Your task to perform on an android device: turn notification dots on Image 0: 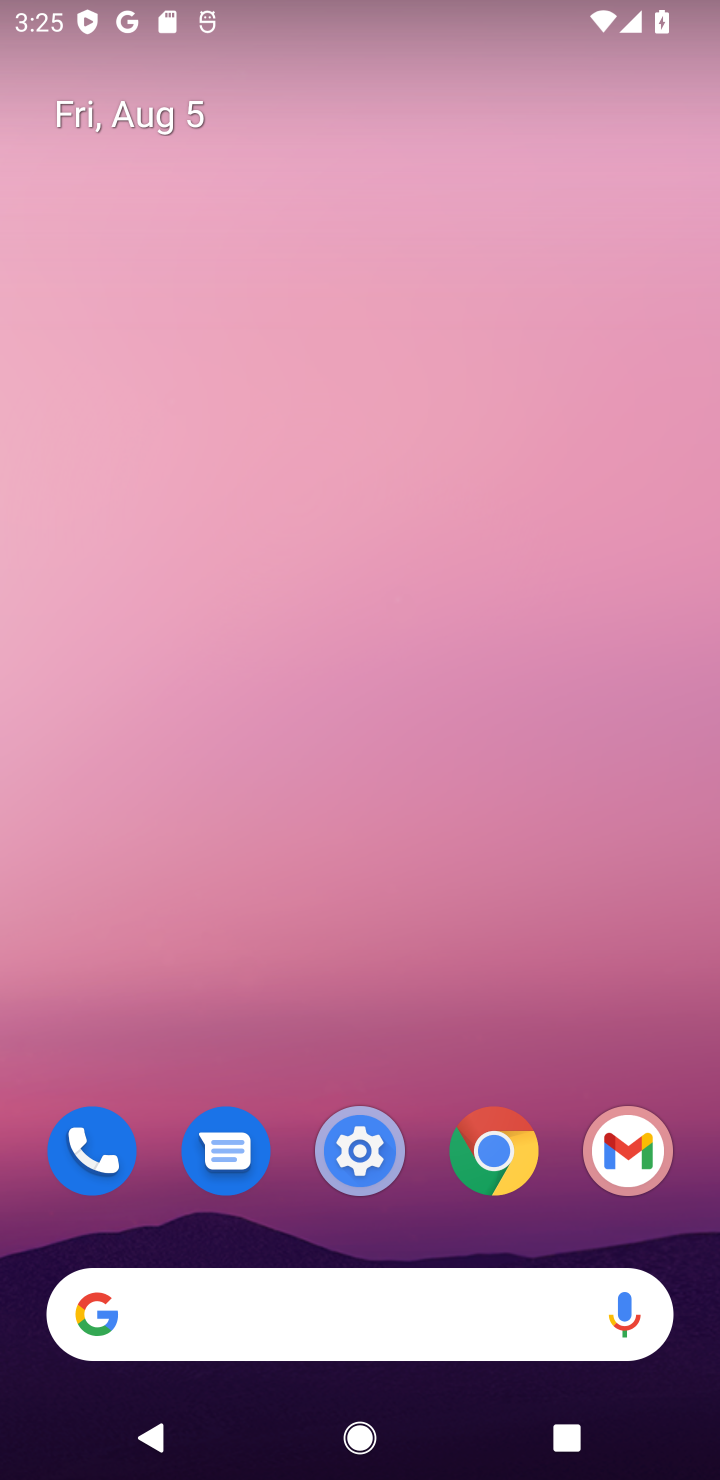
Step 0: click (369, 1130)
Your task to perform on an android device: turn notification dots on Image 1: 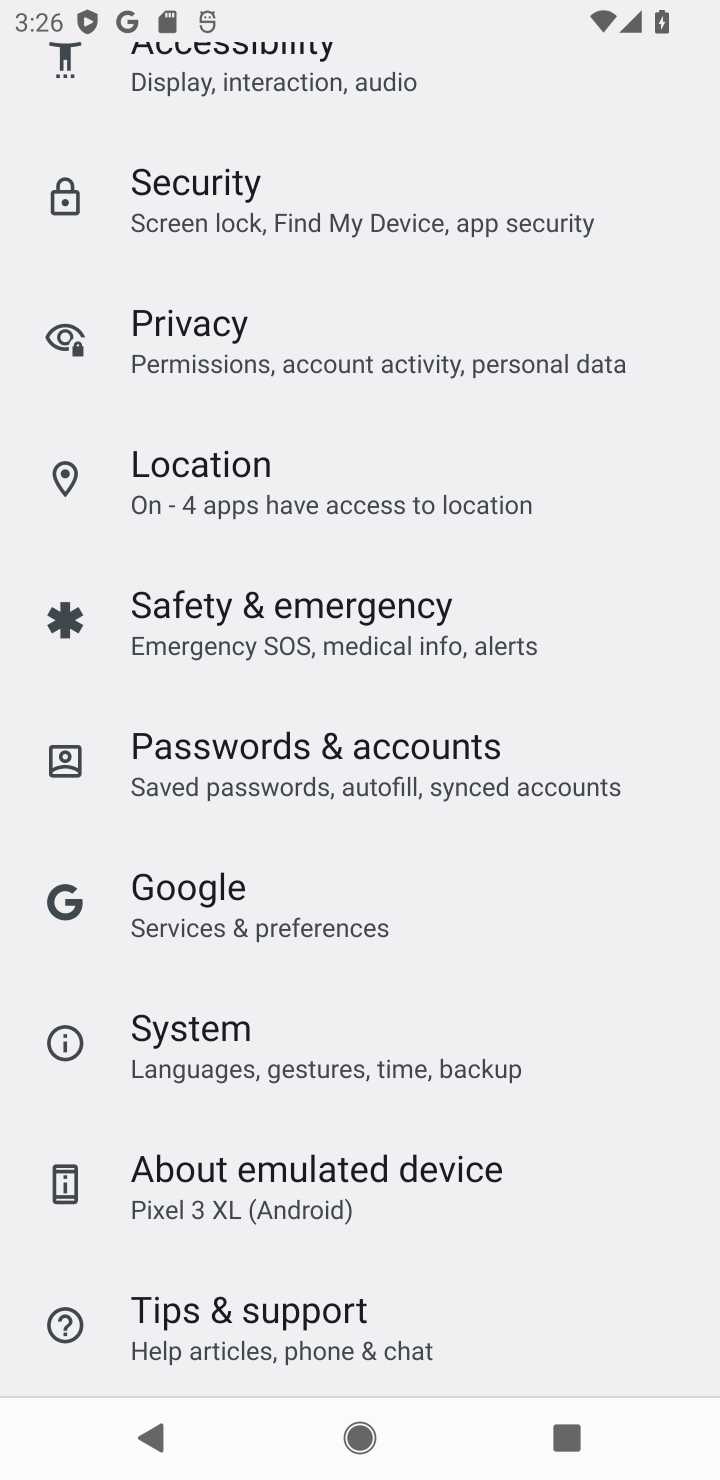
Step 1: drag from (303, 250) to (330, 676)
Your task to perform on an android device: turn notification dots on Image 2: 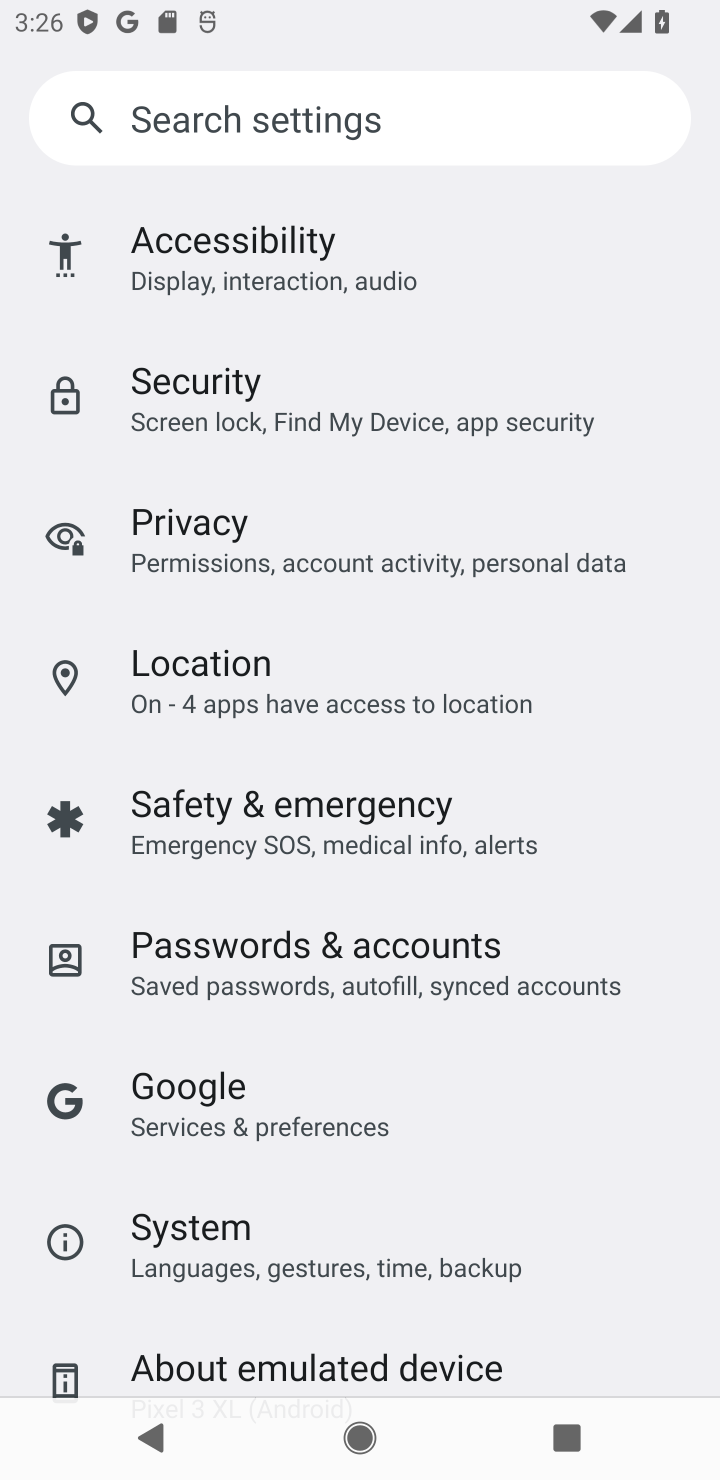
Step 2: drag from (326, 312) to (322, 932)
Your task to perform on an android device: turn notification dots on Image 3: 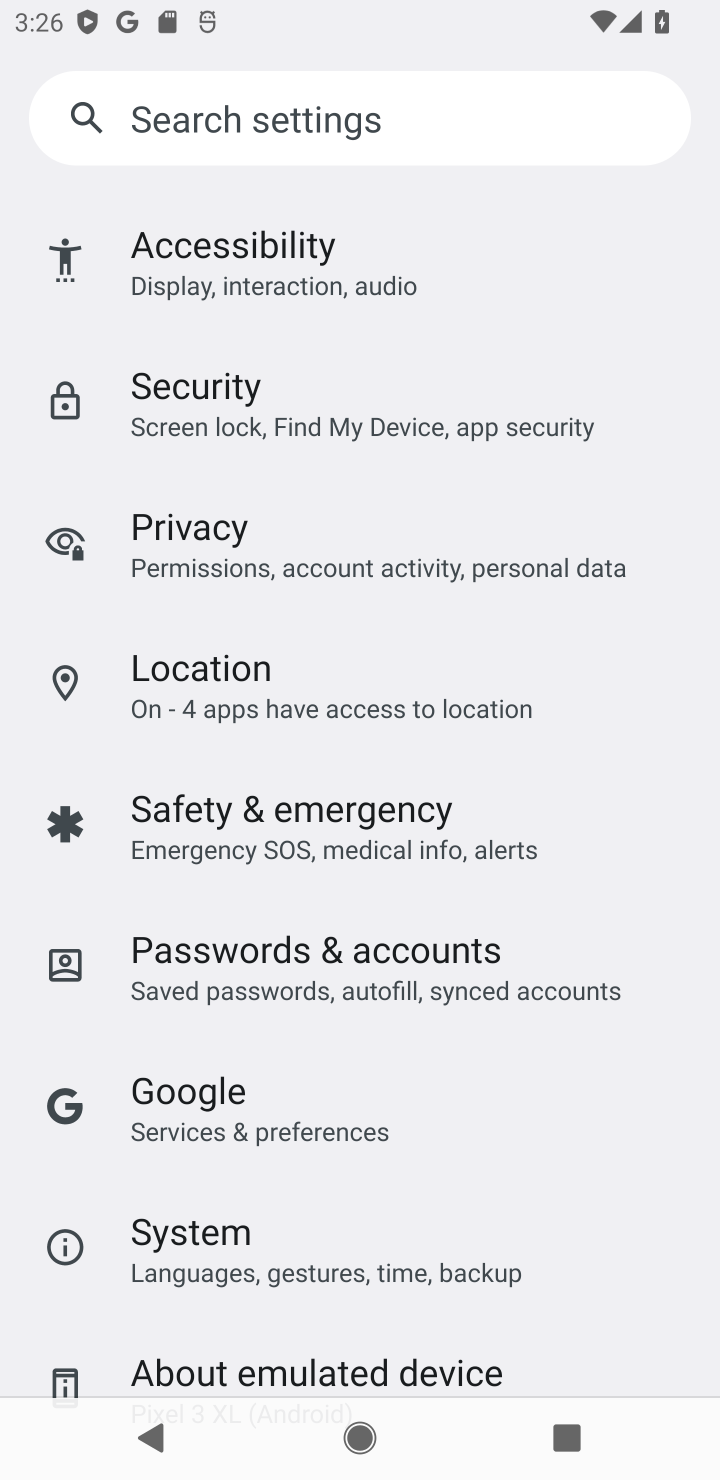
Step 3: drag from (289, 525) to (290, 1156)
Your task to perform on an android device: turn notification dots on Image 4: 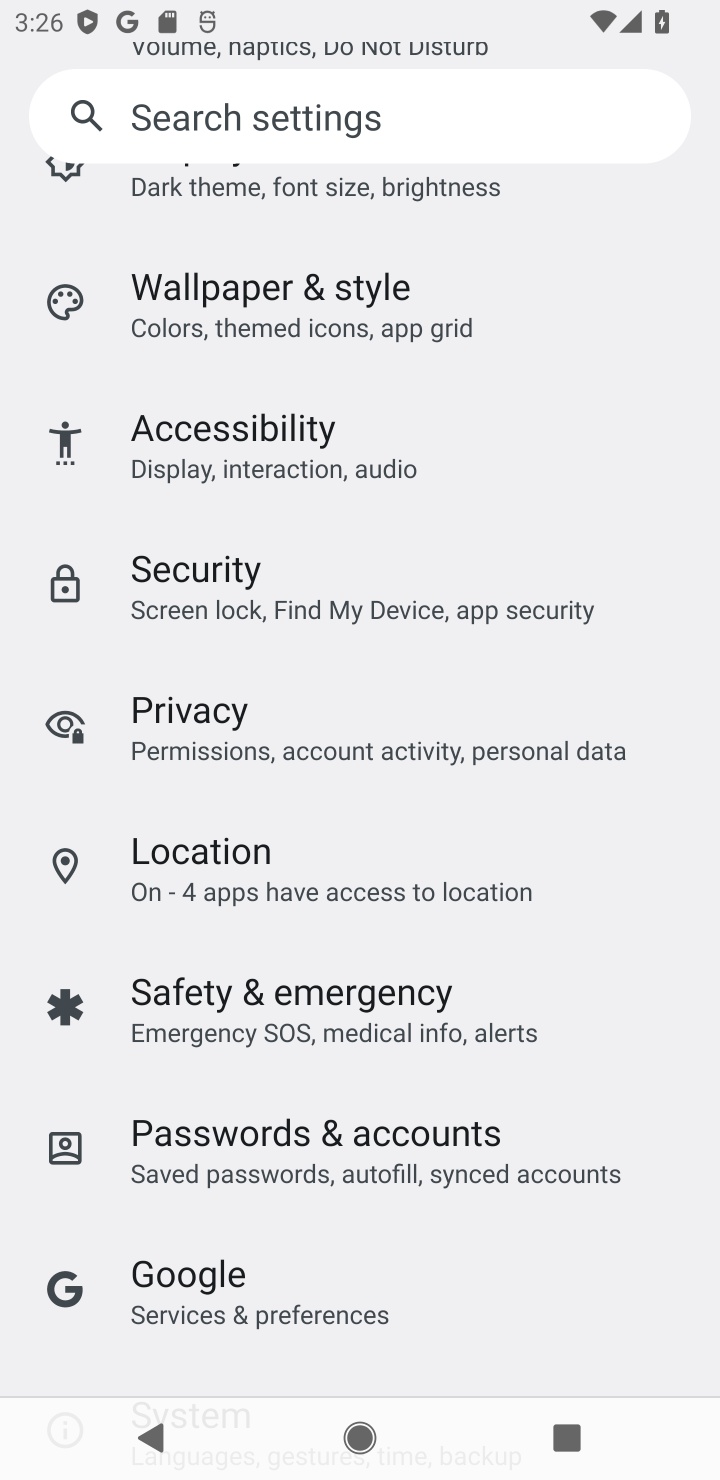
Step 4: drag from (329, 482) to (338, 881)
Your task to perform on an android device: turn notification dots on Image 5: 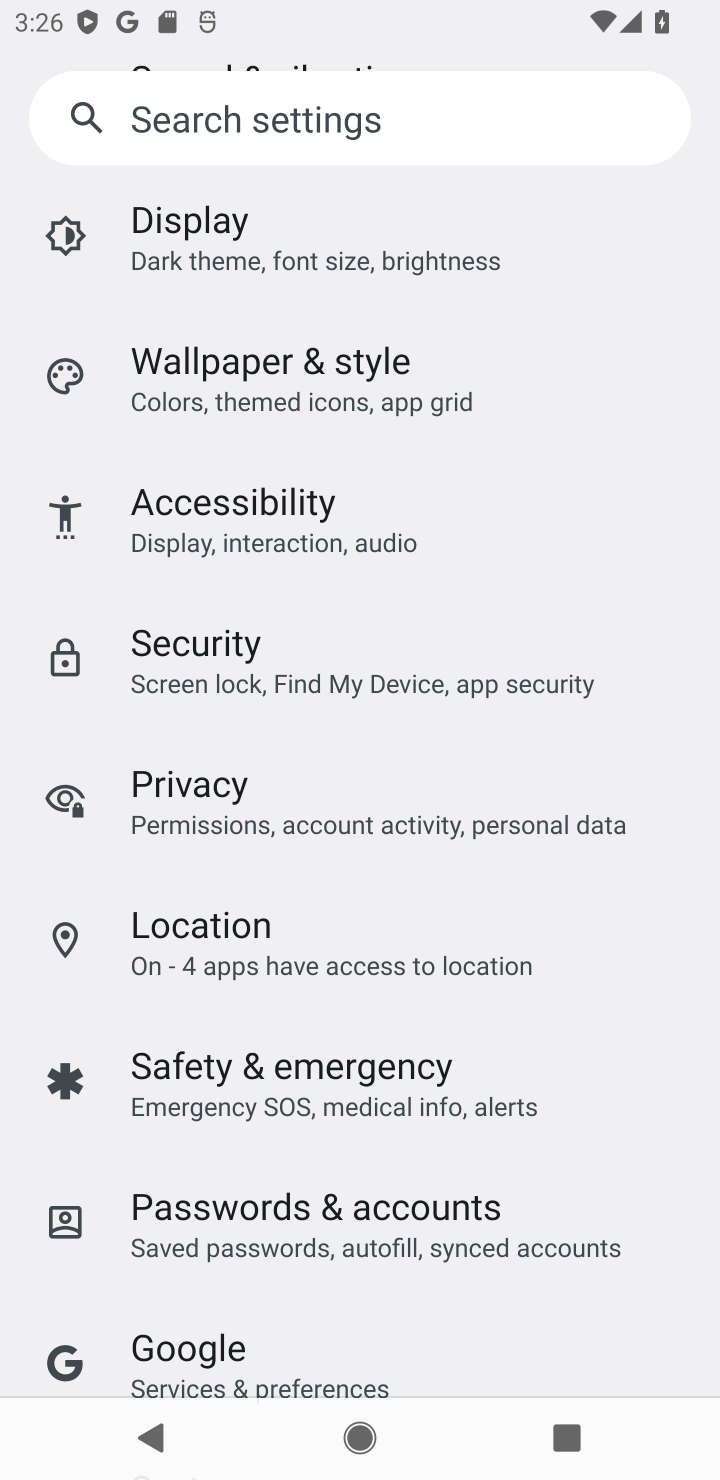
Step 5: drag from (321, 343) to (441, 968)
Your task to perform on an android device: turn notification dots on Image 6: 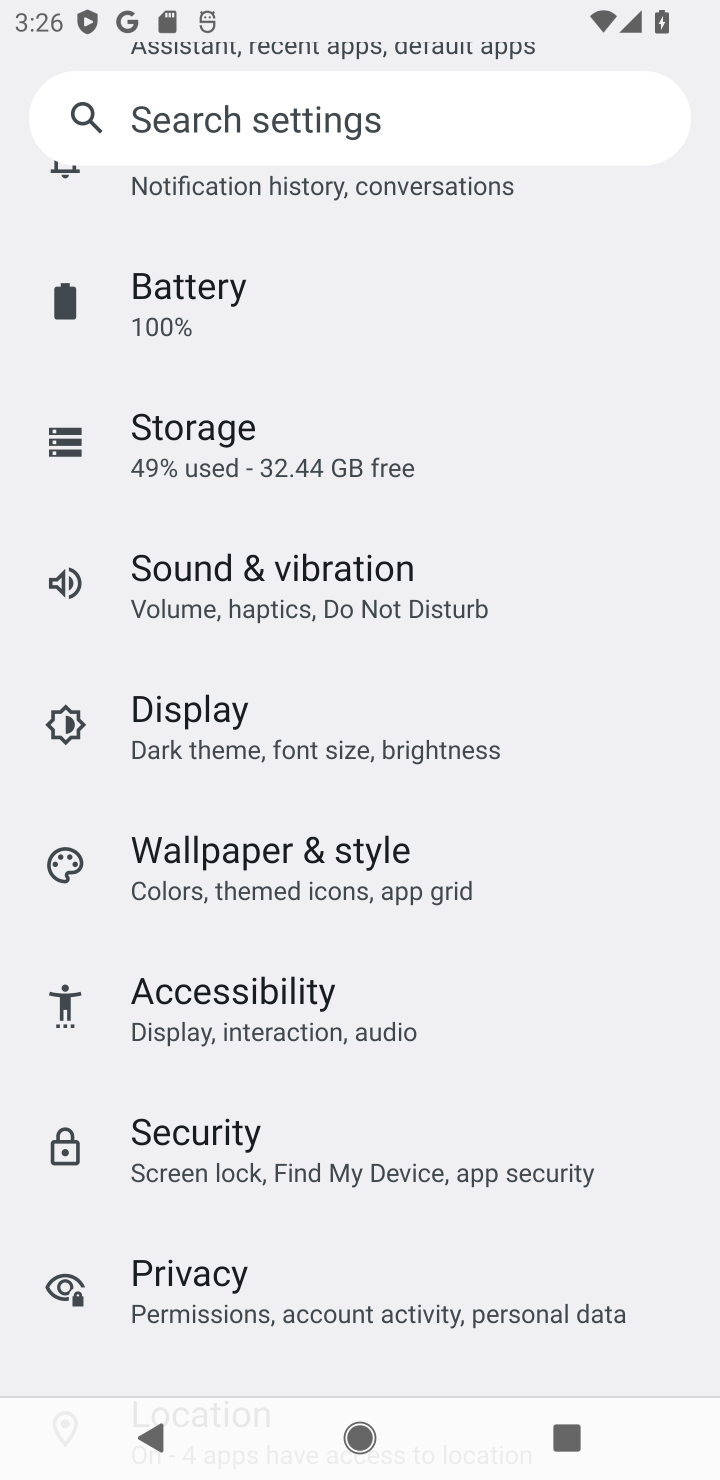
Step 6: click (293, 196)
Your task to perform on an android device: turn notification dots on Image 7: 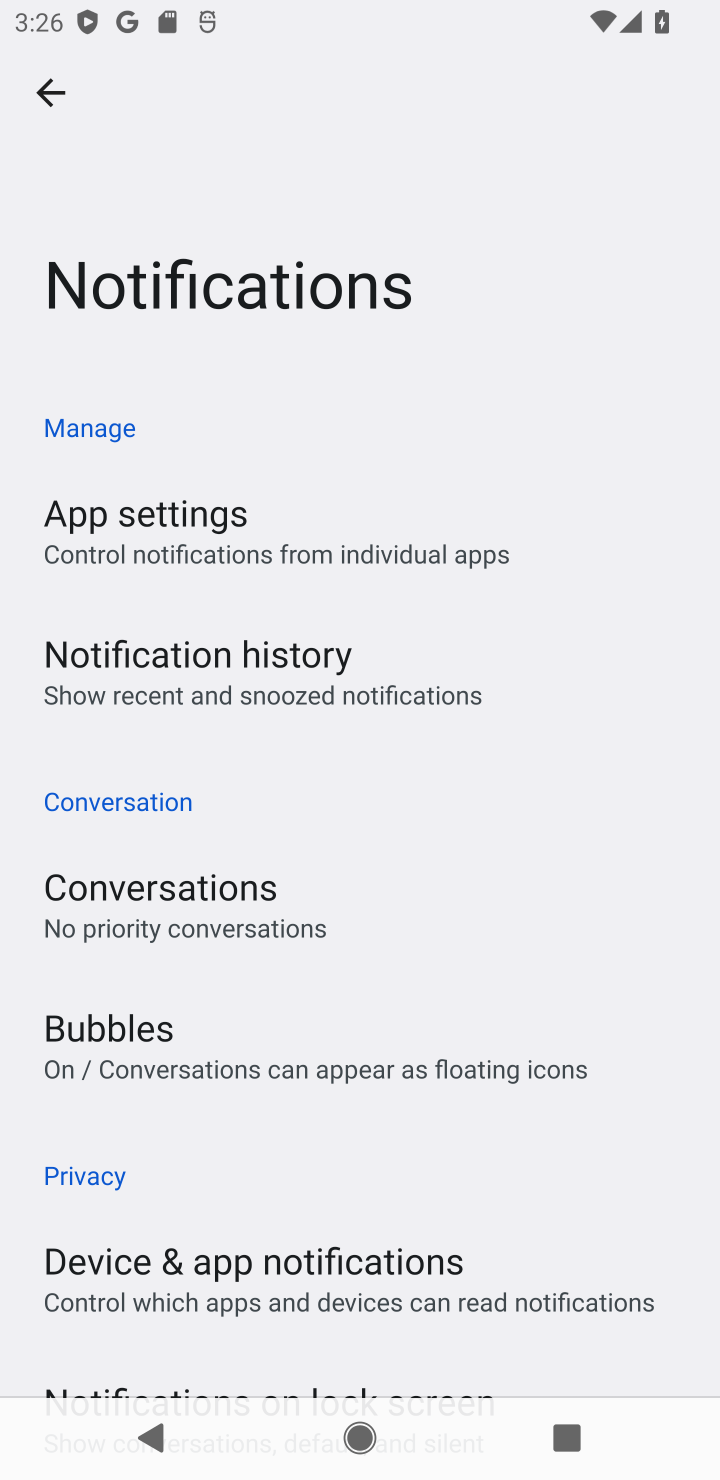
Step 7: task complete